Your task to perform on an android device: turn on location history Image 0: 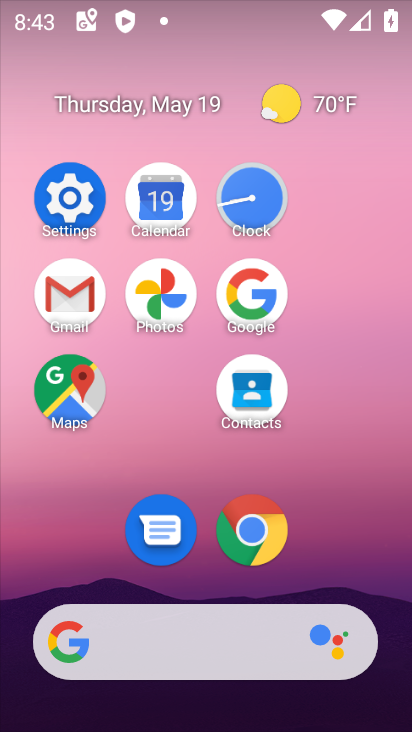
Step 0: click (97, 196)
Your task to perform on an android device: turn on location history Image 1: 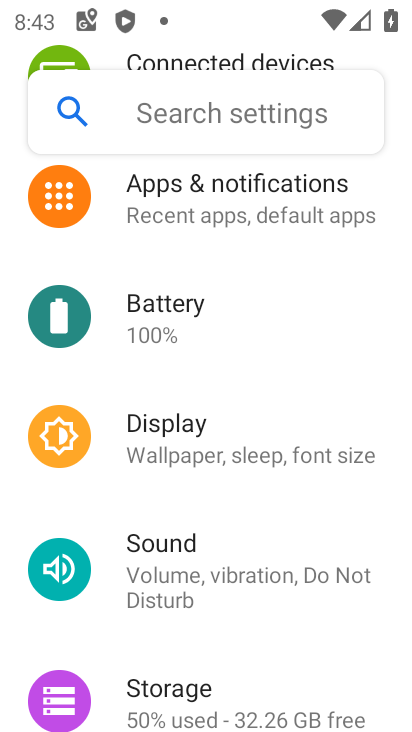
Step 1: drag from (249, 613) to (236, 223)
Your task to perform on an android device: turn on location history Image 2: 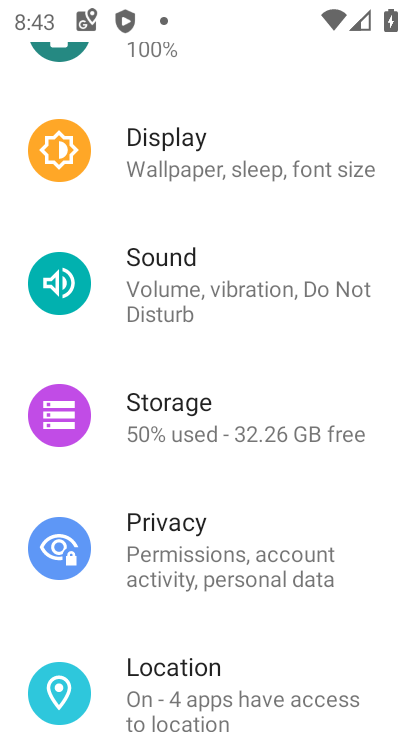
Step 2: click (253, 678)
Your task to perform on an android device: turn on location history Image 3: 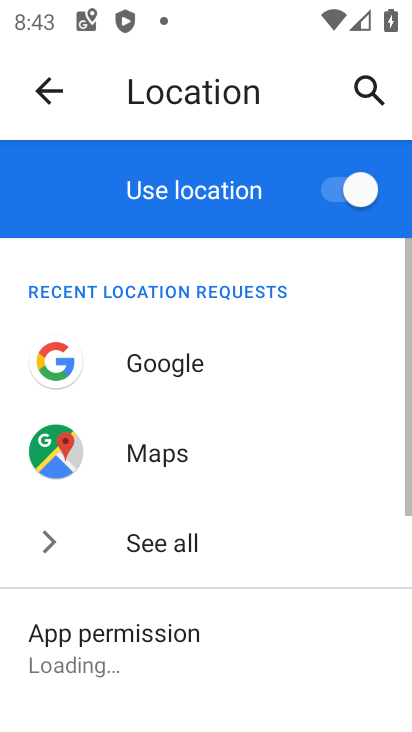
Step 3: drag from (253, 678) to (232, 262)
Your task to perform on an android device: turn on location history Image 4: 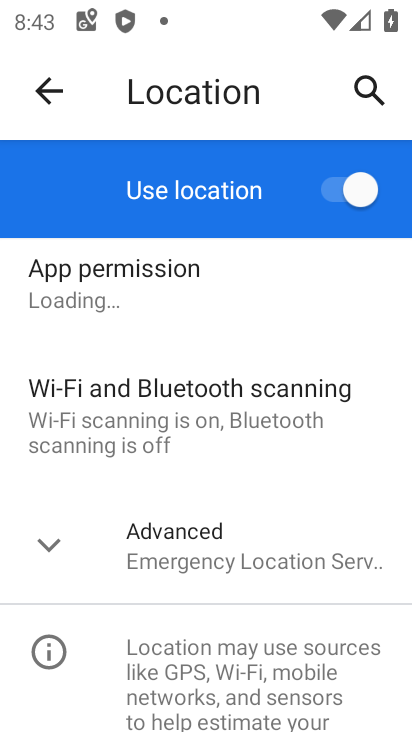
Step 4: click (235, 545)
Your task to perform on an android device: turn on location history Image 5: 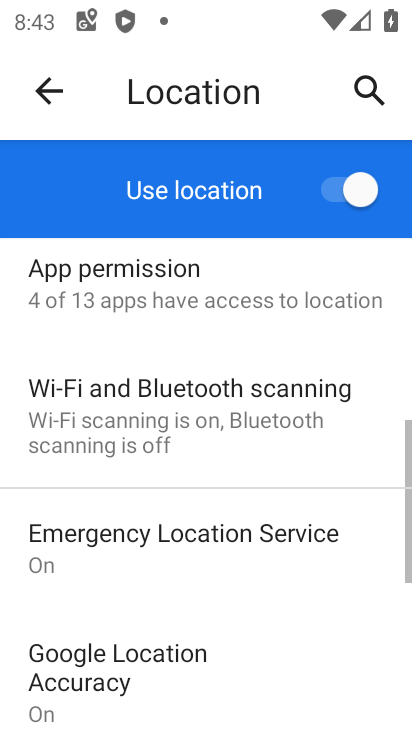
Step 5: drag from (234, 545) to (206, 211)
Your task to perform on an android device: turn on location history Image 6: 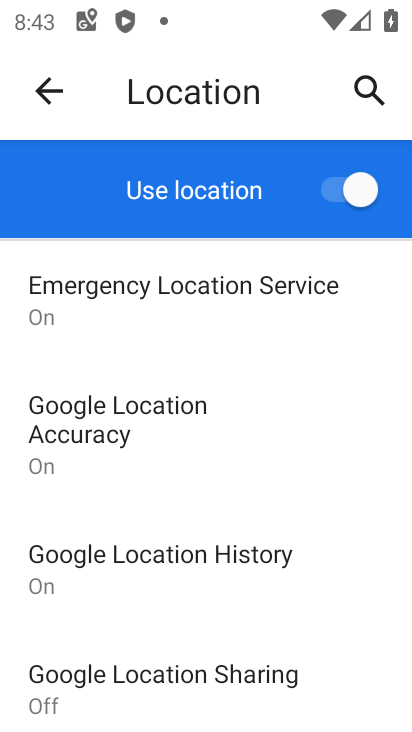
Step 6: click (222, 554)
Your task to perform on an android device: turn on location history Image 7: 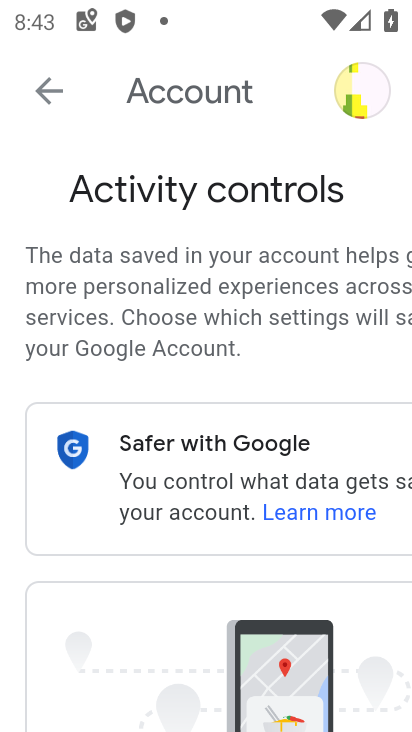
Step 7: task complete